Your task to perform on an android device: Open privacy settings Image 0: 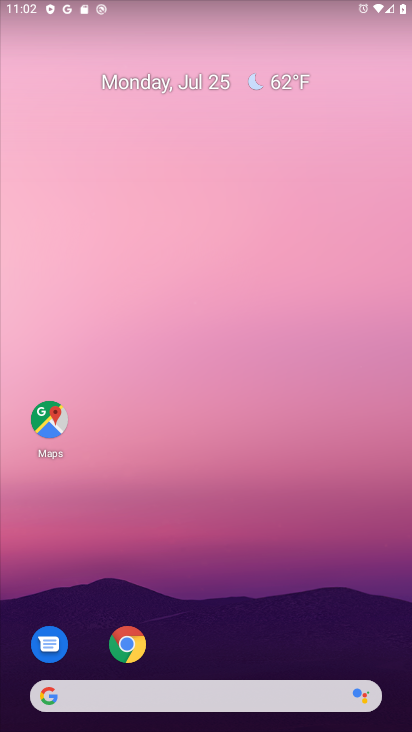
Step 0: drag from (238, 654) to (248, 319)
Your task to perform on an android device: Open privacy settings Image 1: 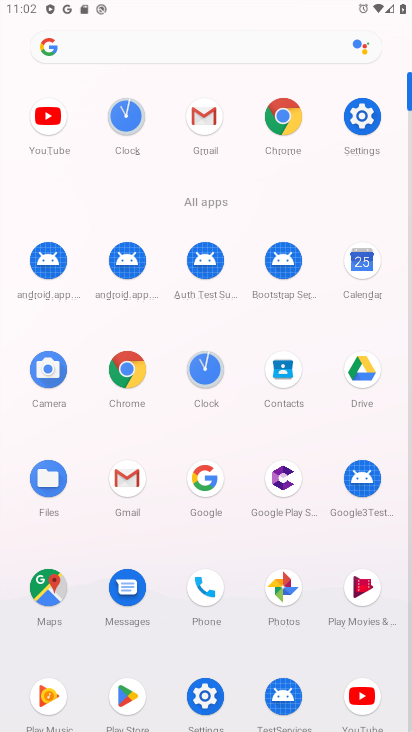
Step 1: click (365, 114)
Your task to perform on an android device: Open privacy settings Image 2: 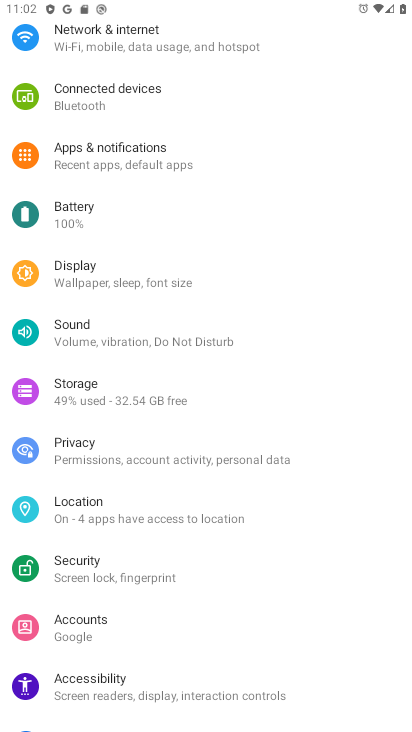
Step 2: click (166, 458)
Your task to perform on an android device: Open privacy settings Image 3: 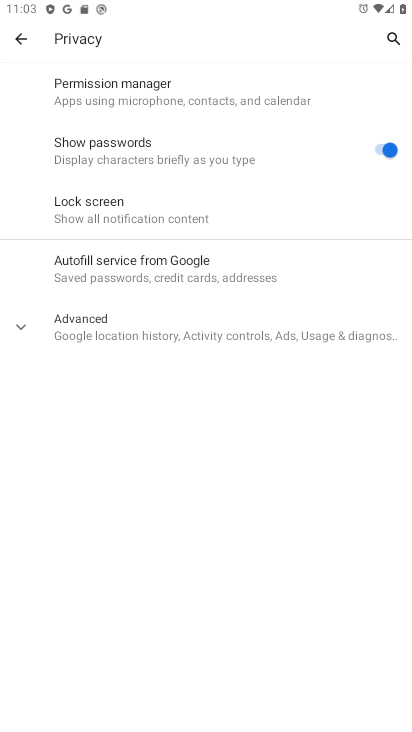
Step 3: task complete